Your task to perform on an android device: clear all cookies in the chrome app Image 0: 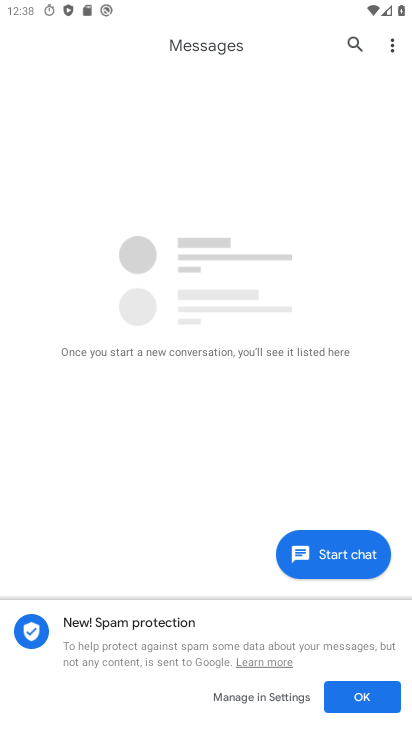
Step 0: press back button
Your task to perform on an android device: clear all cookies in the chrome app Image 1: 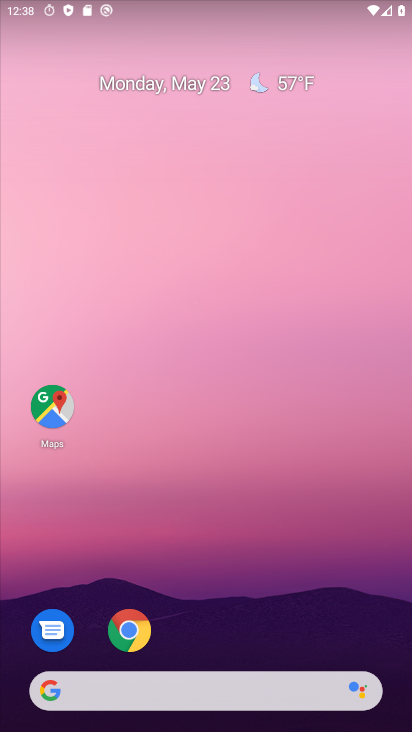
Step 1: drag from (249, 487) to (232, 21)
Your task to perform on an android device: clear all cookies in the chrome app Image 2: 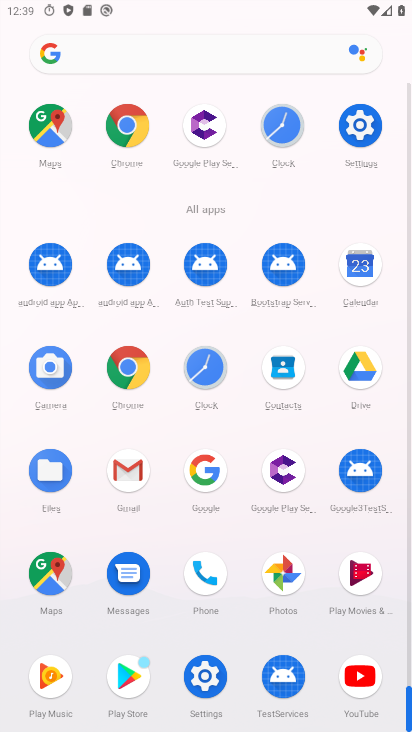
Step 2: drag from (7, 516) to (25, 180)
Your task to perform on an android device: clear all cookies in the chrome app Image 3: 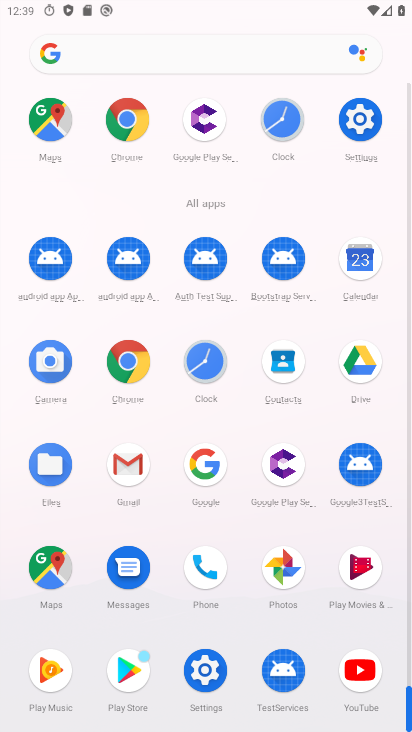
Step 3: click (129, 361)
Your task to perform on an android device: clear all cookies in the chrome app Image 4: 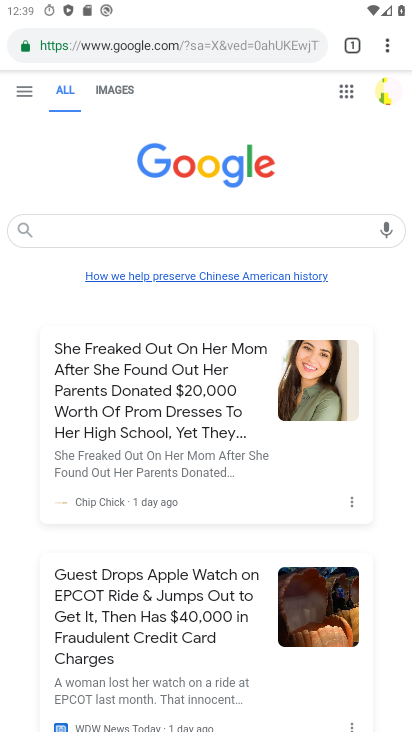
Step 4: drag from (383, 52) to (245, 507)
Your task to perform on an android device: clear all cookies in the chrome app Image 5: 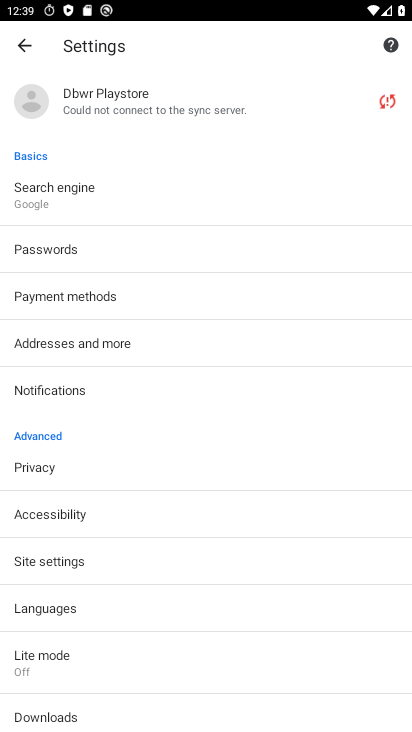
Step 5: drag from (201, 491) to (210, 171)
Your task to perform on an android device: clear all cookies in the chrome app Image 6: 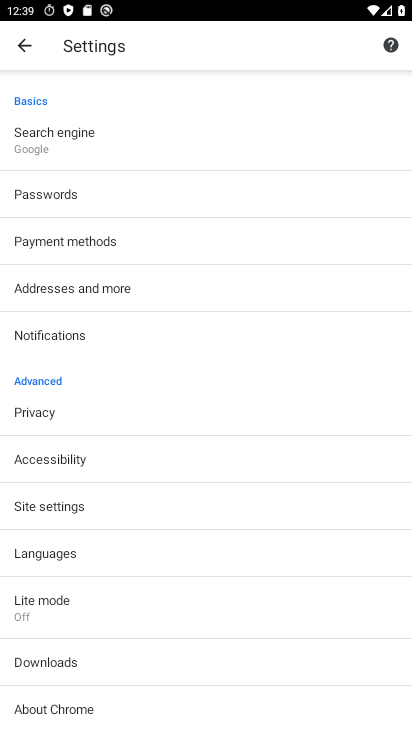
Step 6: drag from (184, 591) to (239, 231)
Your task to perform on an android device: clear all cookies in the chrome app Image 7: 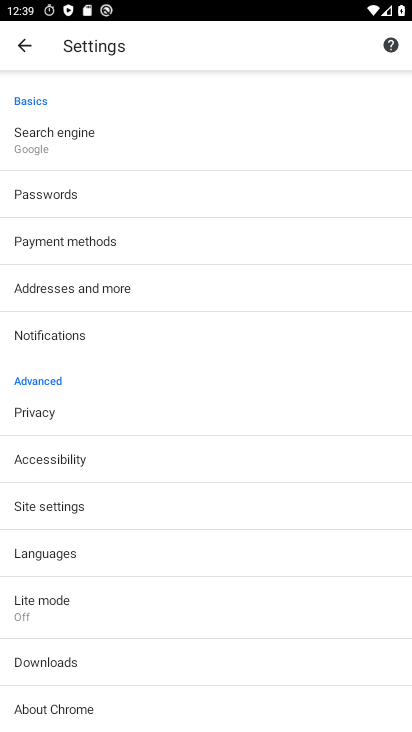
Step 7: click (84, 511)
Your task to perform on an android device: clear all cookies in the chrome app Image 8: 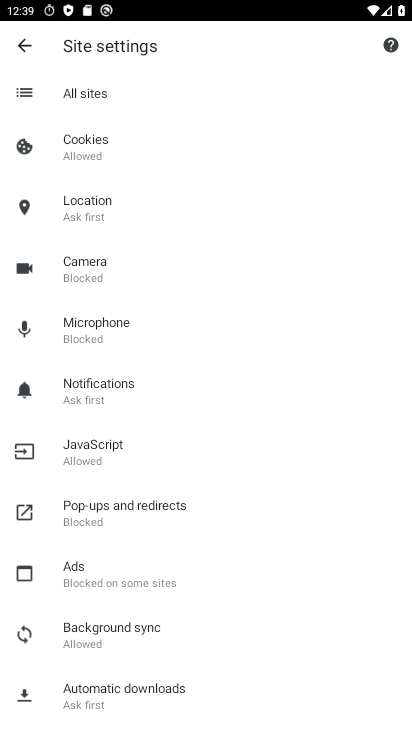
Step 8: click (132, 153)
Your task to perform on an android device: clear all cookies in the chrome app Image 9: 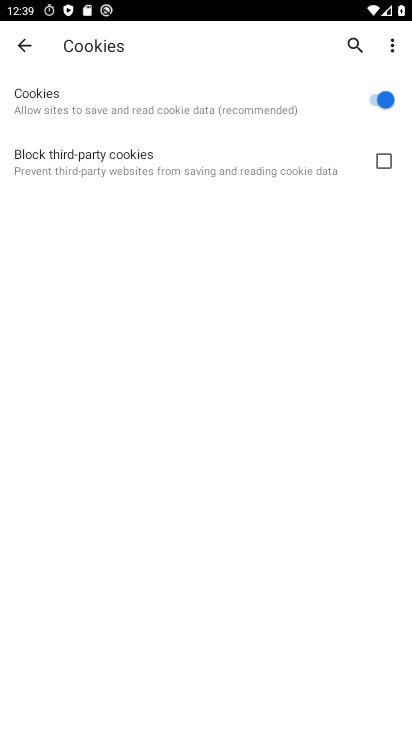
Step 9: task complete